Your task to perform on an android device: Do I have any events today? Image 0: 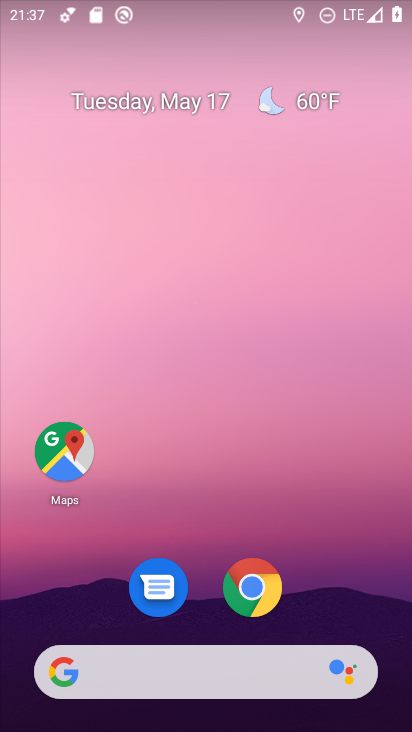
Step 0: drag from (299, 516) to (189, 241)
Your task to perform on an android device: Do I have any events today? Image 1: 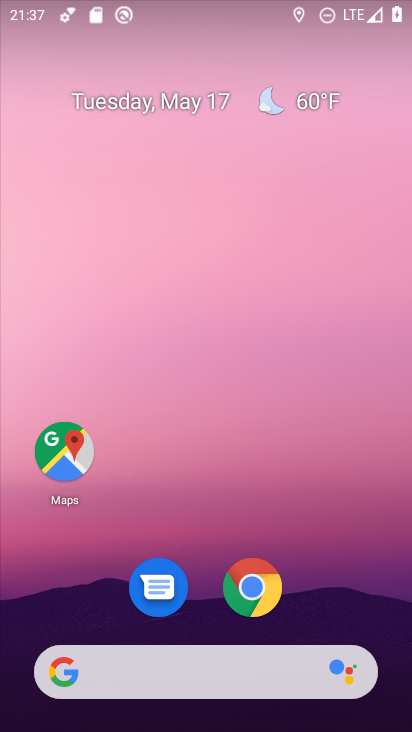
Step 1: drag from (210, 485) to (21, 122)
Your task to perform on an android device: Do I have any events today? Image 2: 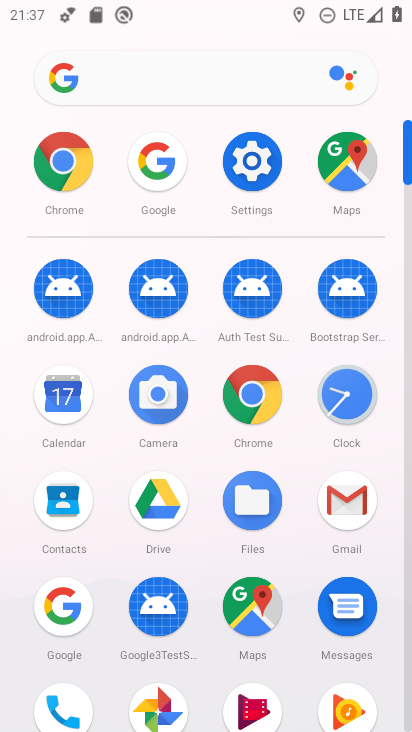
Step 2: click (97, 394)
Your task to perform on an android device: Do I have any events today? Image 3: 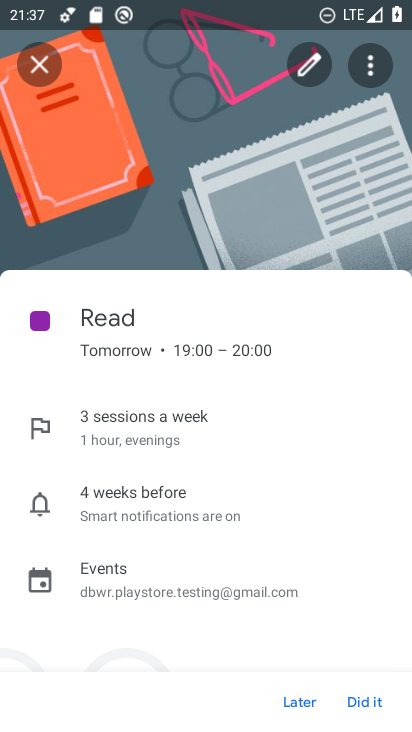
Step 3: task complete